Your task to perform on an android device: Open Google Maps and go to "Timeline" Image 0: 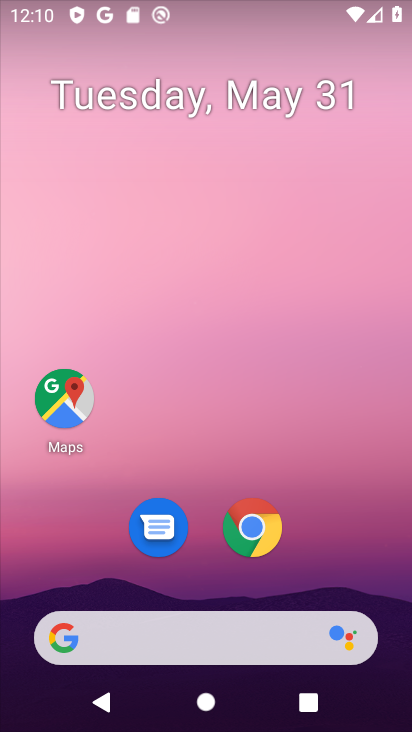
Step 0: drag from (342, 595) to (184, 14)
Your task to perform on an android device: Open Google Maps and go to "Timeline" Image 1: 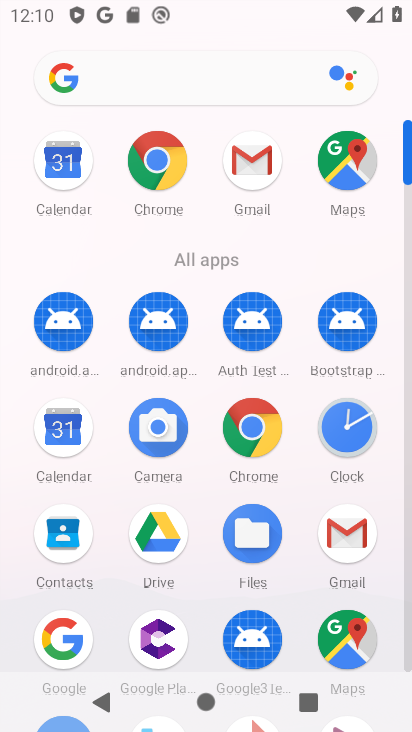
Step 1: click (348, 639)
Your task to perform on an android device: Open Google Maps and go to "Timeline" Image 2: 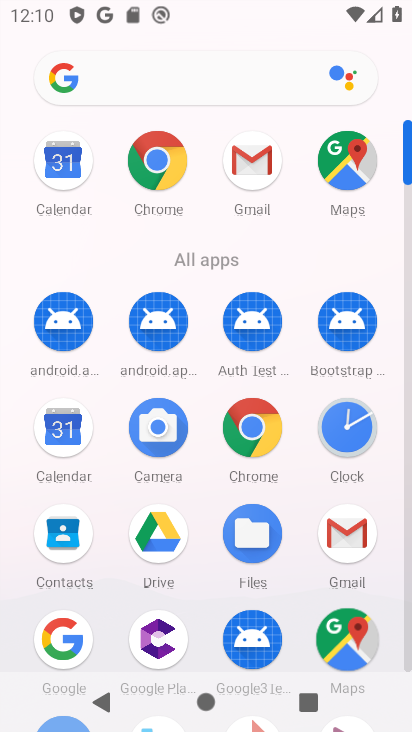
Step 2: click (348, 639)
Your task to perform on an android device: Open Google Maps and go to "Timeline" Image 3: 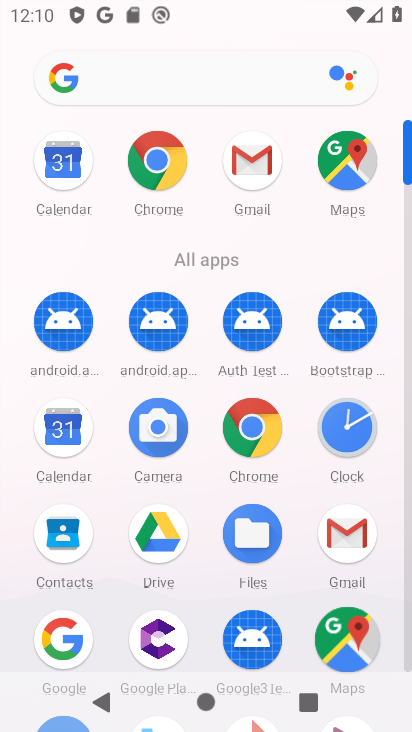
Step 3: click (348, 639)
Your task to perform on an android device: Open Google Maps and go to "Timeline" Image 4: 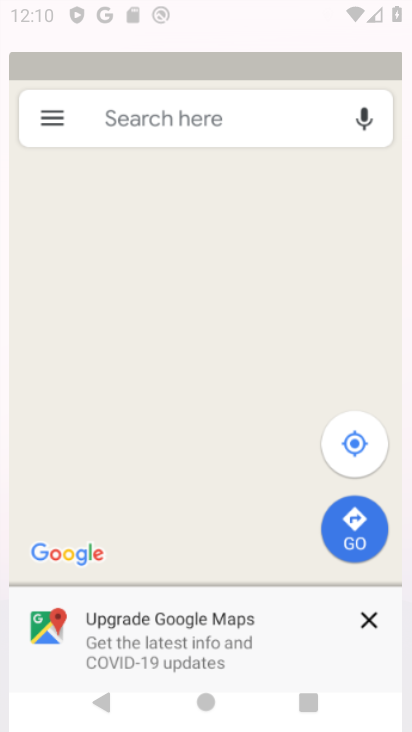
Step 4: click (348, 639)
Your task to perform on an android device: Open Google Maps and go to "Timeline" Image 5: 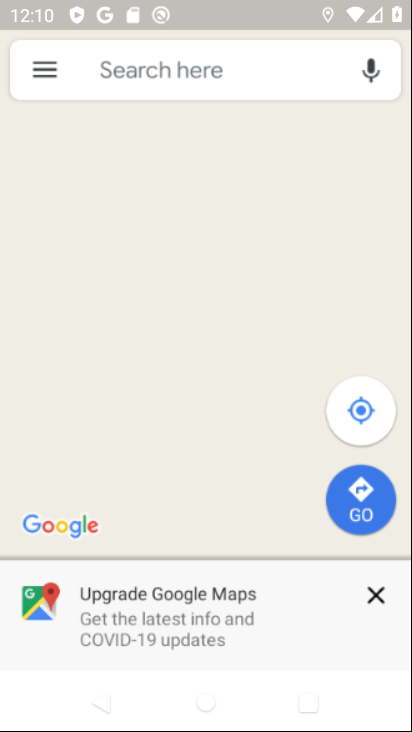
Step 5: click (347, 639)
Your task to perform on an android device: Open Google Maps and go to "Timeline" Image 6: 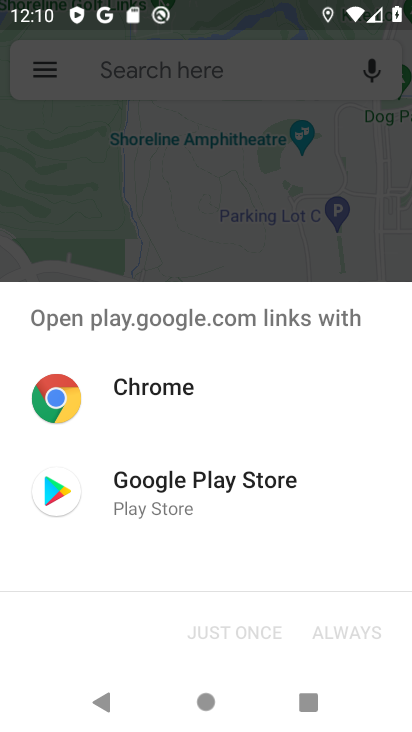
Step 6: drag from (115, 190) to (170, 493)
Your task to perform on an android device: Open Google Maps and go to "Timeline" Image 7: 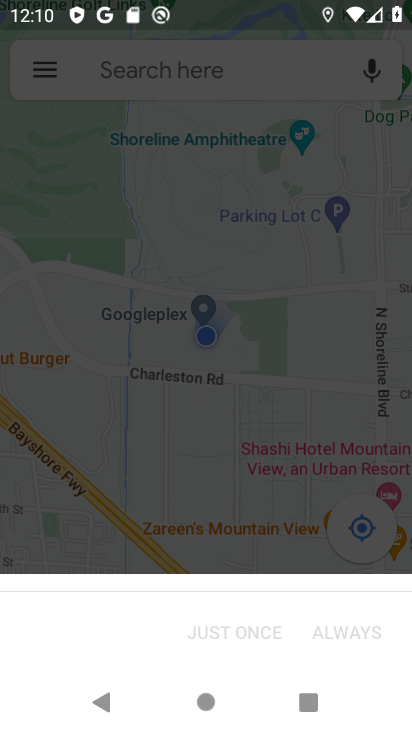
Step 7: click (170, 493)
Your task to perform on an android device: Open Google Maps and go to "Timeline" Image 8: 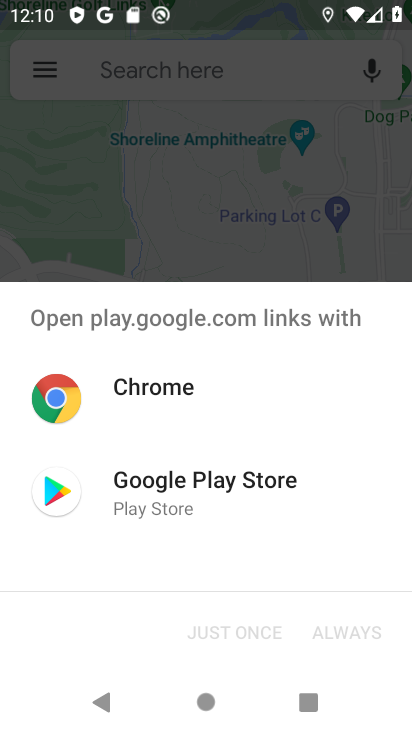
Step 8: click (167, 492)
Your task to perform on an android device: Open Google Maps and go to "Timeline" Image 9: 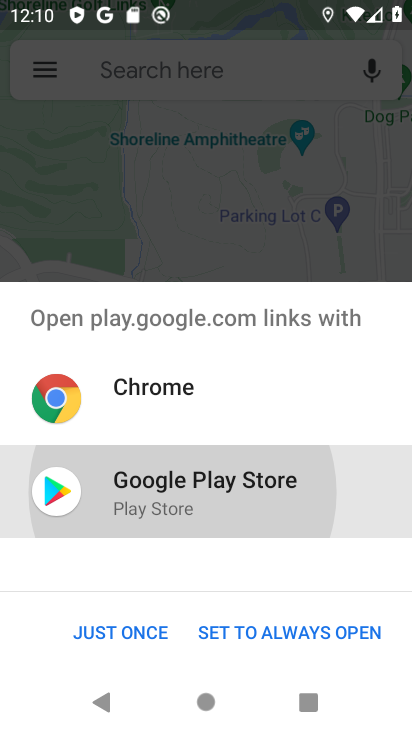
Step 9: click (162, 492)
Your task to perform on an android device: Open Google Maps and go to "Timeline" Image 10: 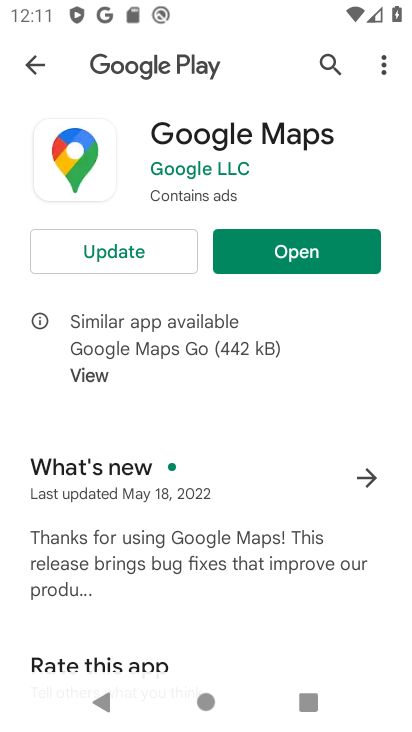
Step 10: click (122, 241)
Your task to perform on an android device: Open Google Maps and go to "Timeline" Image 11: 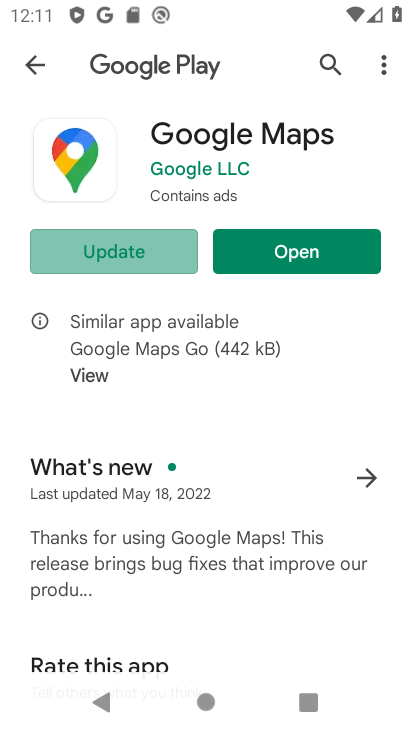
Step 11: click (122, 241)
Your task to perform on an android device: Open Google Maps and go to "Timeline" Image 12: 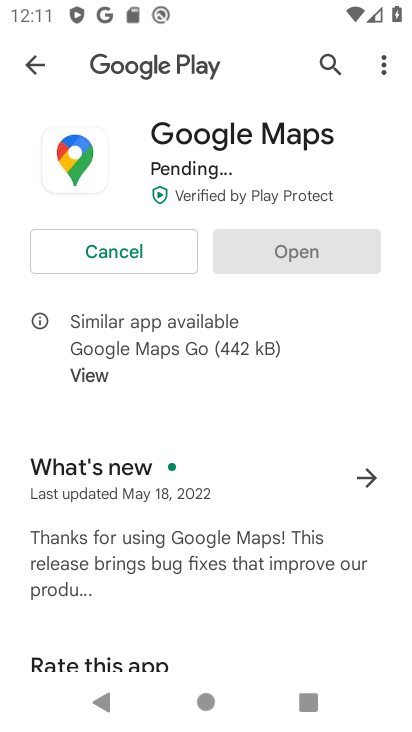
Step 12: click (124, 243)
Your task to perform on an android device: Open Google Maps and go to "Timeline" Image 13: 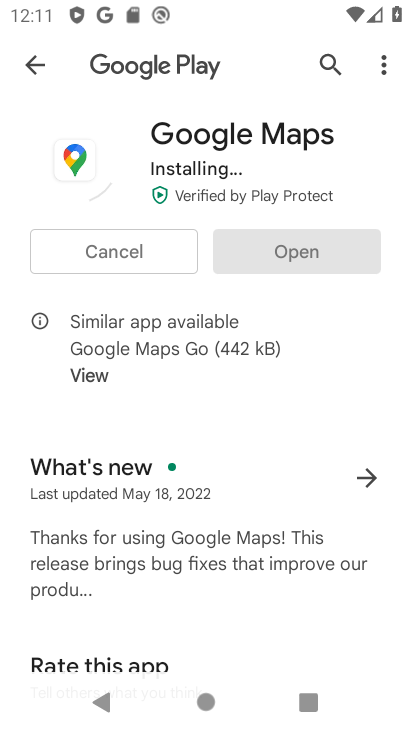
Step 13: task complete